Your task to perform on an android device: Go to calendar. Show me events next week Image 0: 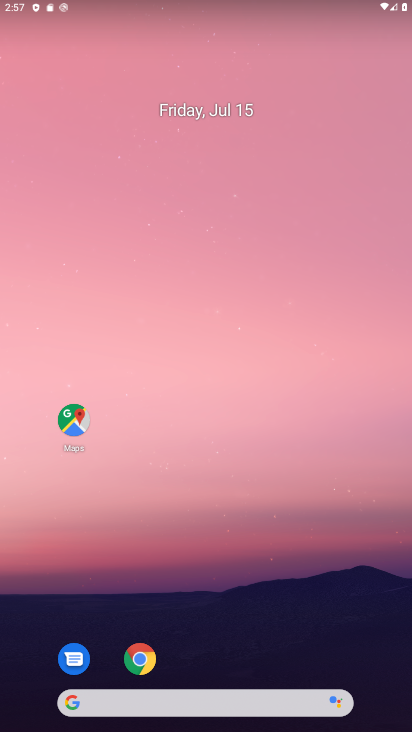
Step 0: drag from (174, 650) to (319, 105)
Your task to perform on an android device: Go to calendar. Show me events next week Image 1: 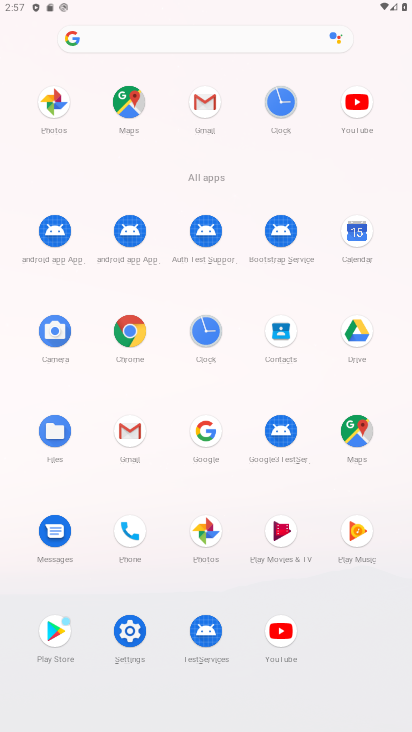
Step 1: drag from (230, 617) to (283, 128)
Your task to perform on an android device: Go to calendar. Show me events next week Image 2: 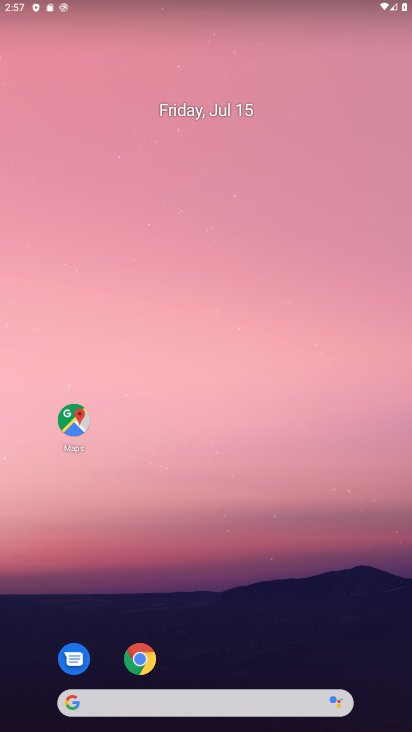
Step 2: drag from (193, 541) to (286, 118)
Your task to perform on an android device: Go to calendar. Show me events next week Image 3: 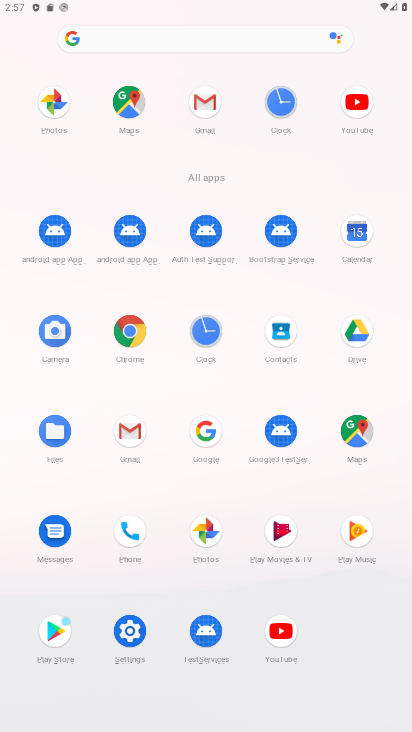
Step 3: click (351, 233)
Your task to perform on an android device: Go to calendar. Show me events next week Image 4: 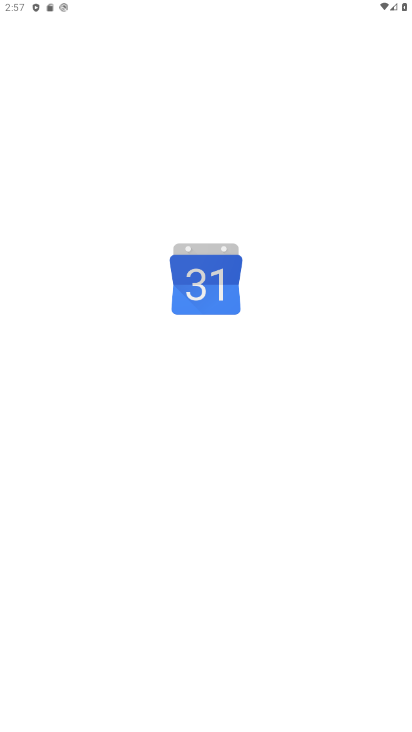
Step 4: click (354, 232)
Your task to perform on an android device: Go to calendar. Show me events next week Image 5: 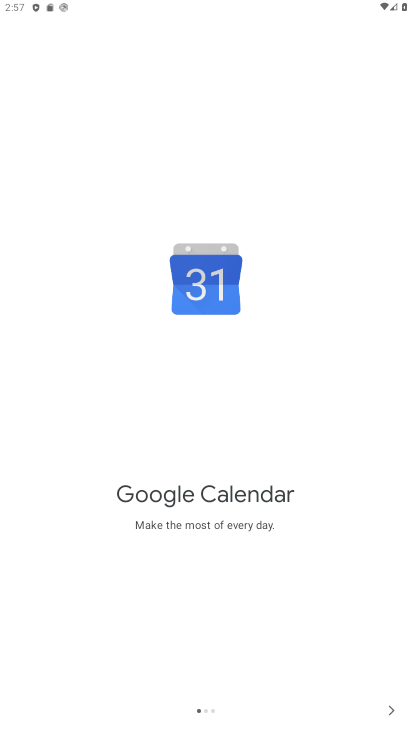
Step 5: click (261, 137)
Your task to perform on an android device: Go to calendar. Show me events next week Image 6: 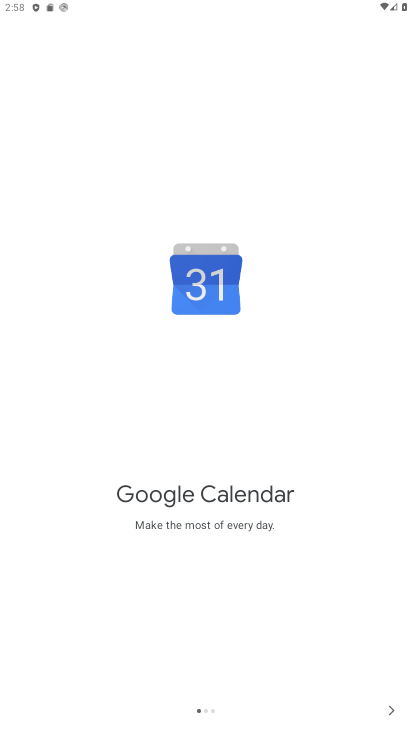
Step 6: click (390, 709)
Your task to perform on an android device: Go to calendar. Show me events next week Image 7: 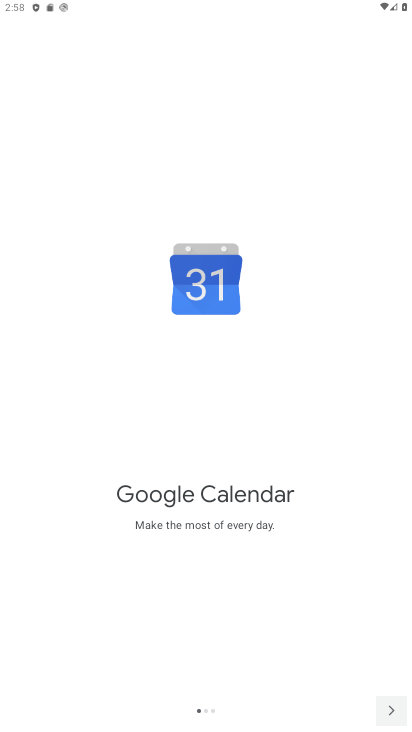
Step 7: click (387, 709)
Your task to perform on an android device: Go to calendar. Show me events next week Image 8: 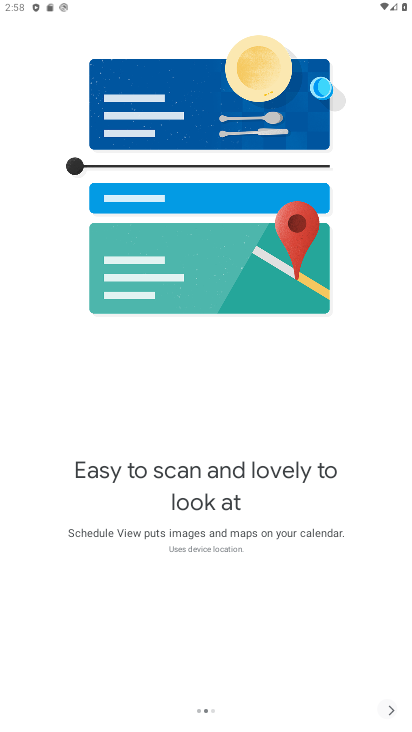
Step 8: click (368, 702)
Your task to perform on an android device: Go to calendar. Show me events next week Image 9: 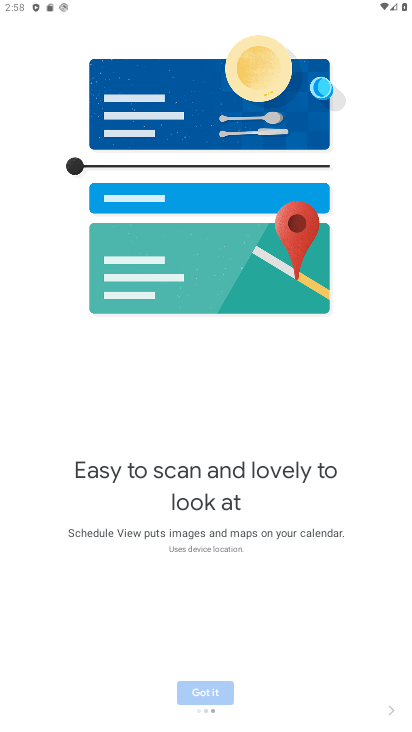
Step 9: click (368, 702)
Your task to perform on an android device: Go to calendar. Show me events next week Image 10: 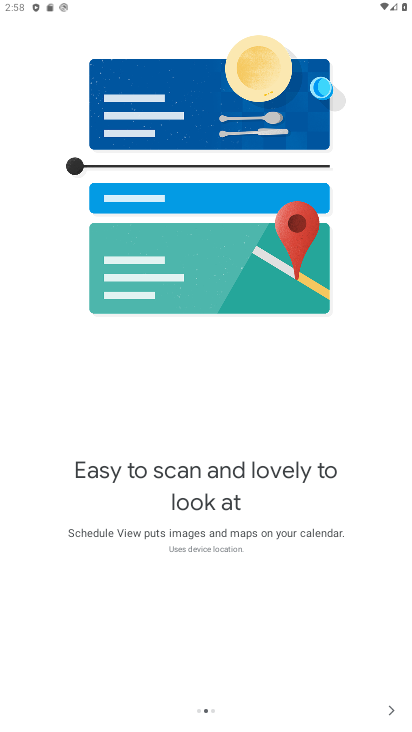
Step 10: click (368, 702)
Your task to perform on an android device: Go to calendar. Show me events next week Image 11: 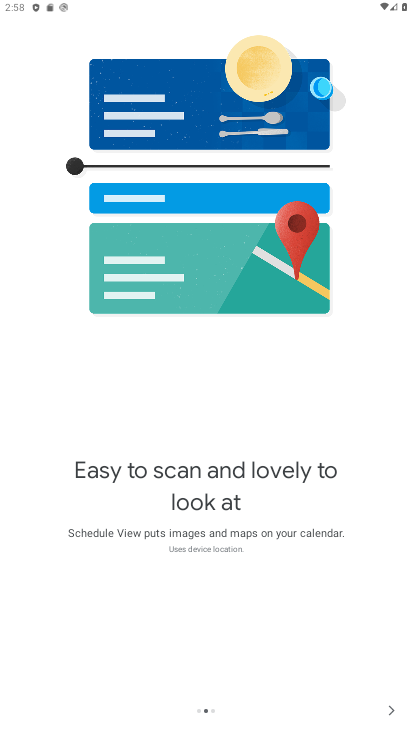
Step 11: click (396, 708)
Your task to perform on an android device: Go to calendar. Show me events next week Image 12: 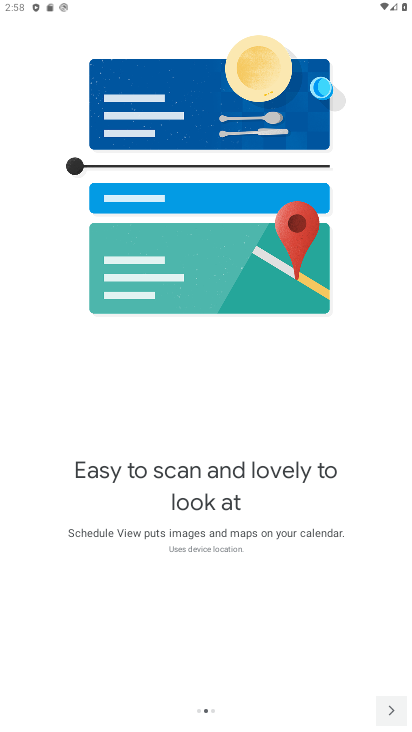
Step 12: click (396, 708)
Your task to perform on an android device: Go to calendar. Show me events next week Image 13: 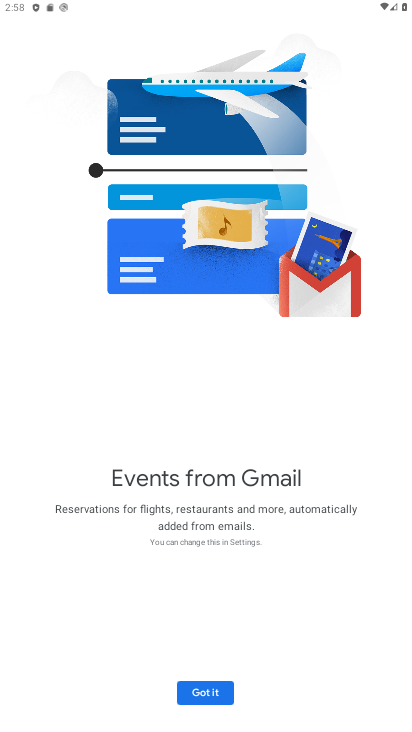
Step 13: click (396, 708)
Your task to perform on an android device: Go to calendar. Show me events next week Image 14: 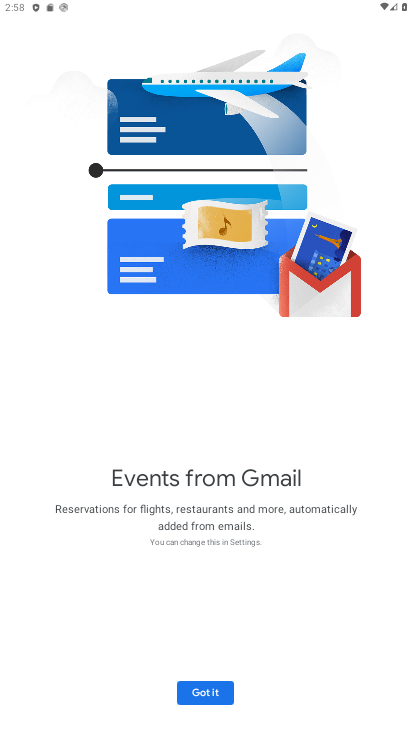
Step 14: click (226, 689)
Your task to perform on an android device: Go to calendar. Show me events next week Image 15: 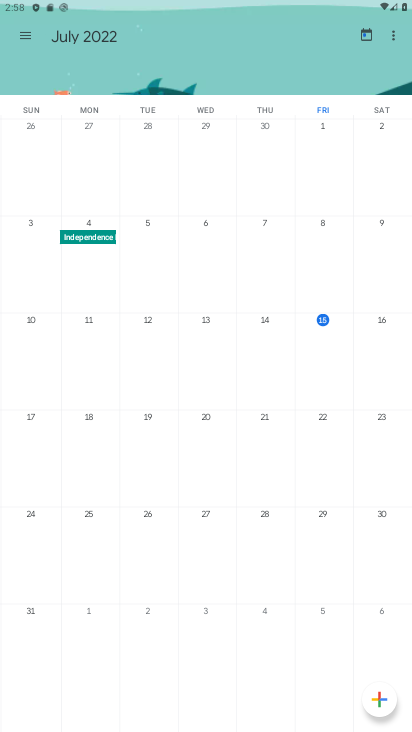
Step 15: click (374, 413)
Your task to perform on an android device: Go to calendar. Show me events next week Image 16: 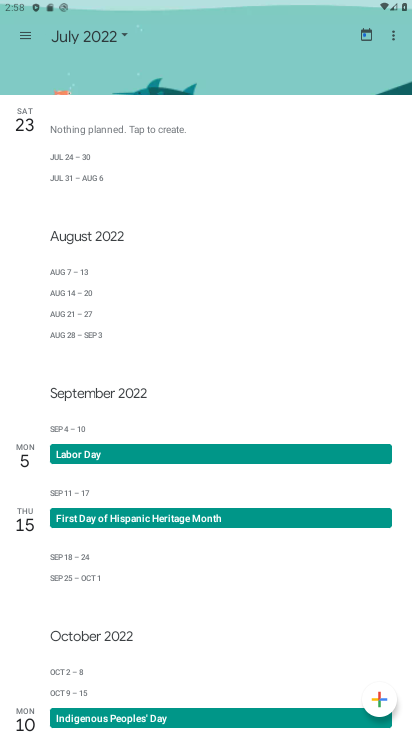
Step 16: click (380, 415)
Your task to perform on an android device: Go to calendar. Show me events next week Image 17: 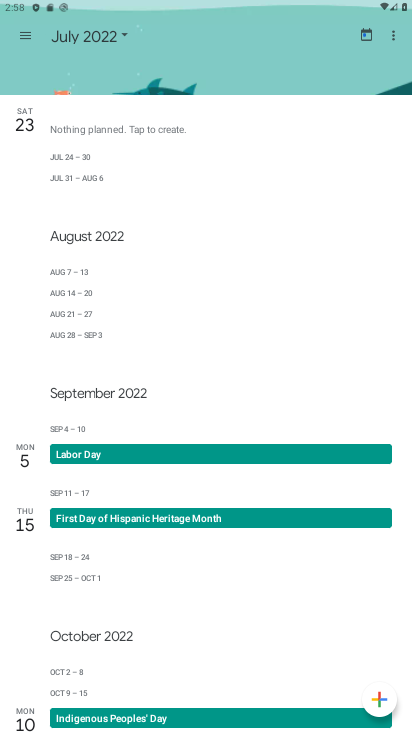
Step 17: task complete